Your task to perform on an android device: turn pop-ups off in chrome Image 0: 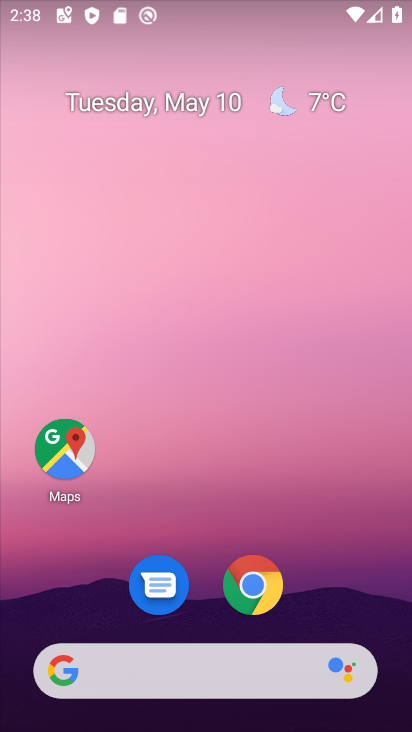
Step 0: click (259, 575)
Your task to perform on an android device: turn pop-ups off in chrome Image 1: 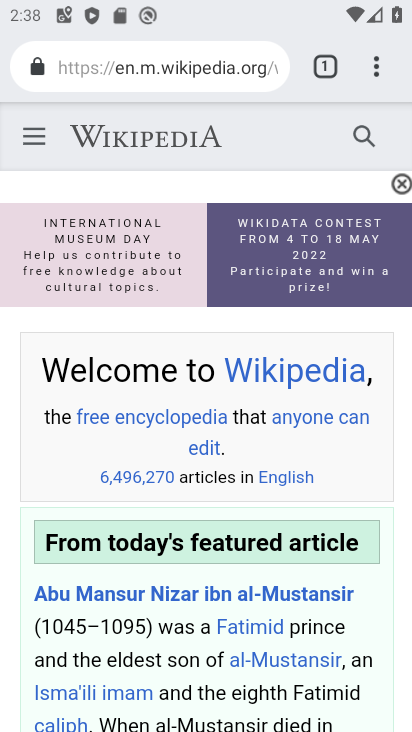
Step 1: click (373, 63)
Your task to perform on an android device: turn pop-ups off in chrome Image 2: 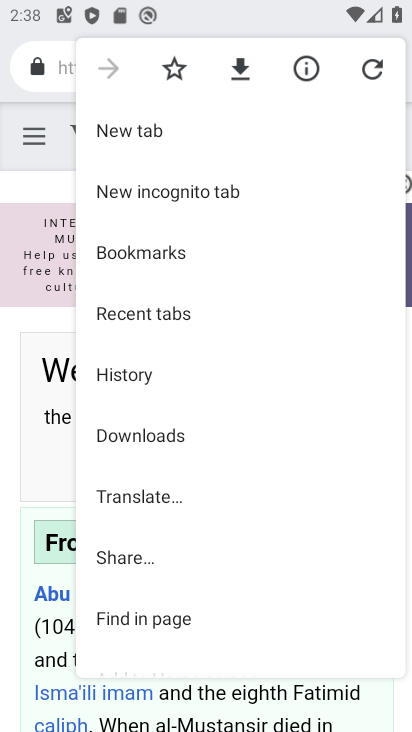
Step 2: drag from (277, 324) to (294, 184)
Your task to perform on an android device: turn pop-ups off in chrome Image 3: 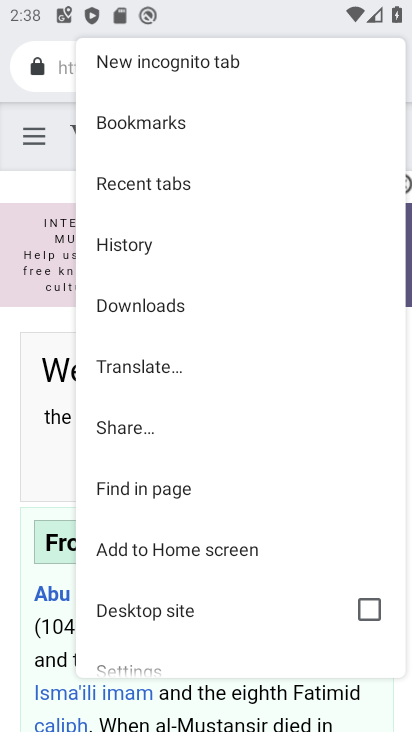
Step 3: drag from (242, 568) to (252, 375)
Your task to perform on an android device: turn pop-ups off in chrome Image 4: 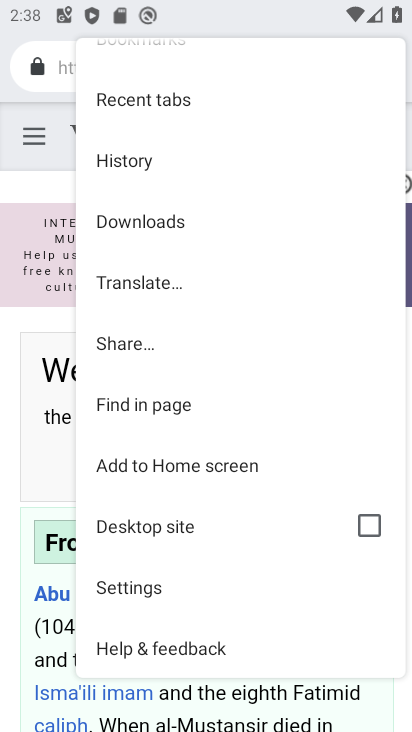
Step 4: click (178, 578)
Your task to perform on an android device: turn pop-ups off in chrome Image 5: 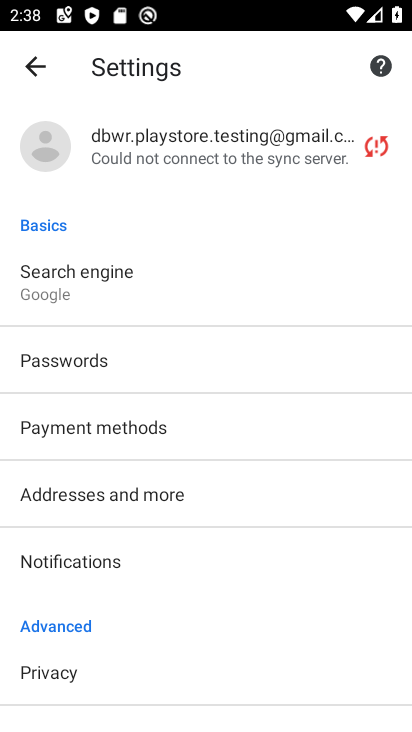
Step 5: drag from (178, 578) to (201, 265)
Your task to perform on an android device: turn pop-ups off in chrome Image 6: 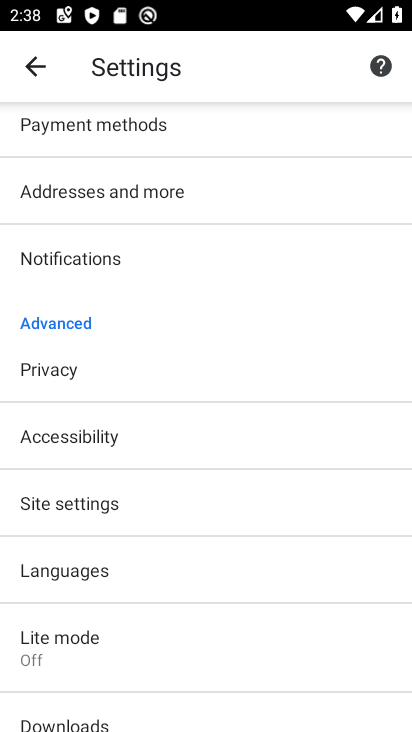
Step 6: click (155, 493)
Your task to perform on an android device: turn pop-ups off in chrome Image 7: 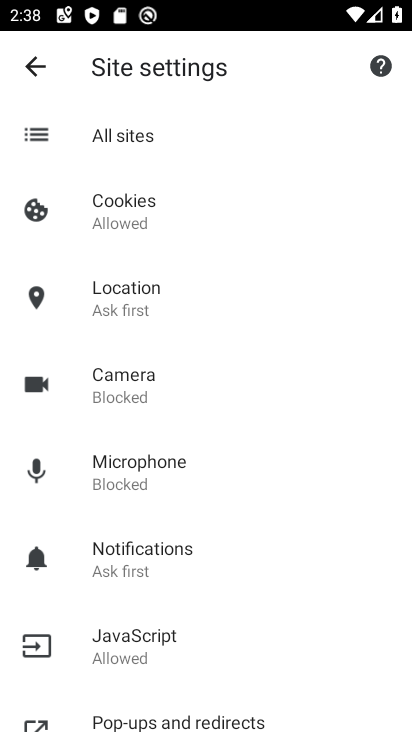
Step 7: drag from (227, 484) to (238, 308)
Your task to perform on an android device: turn pop-ups off in chrome Image 8: 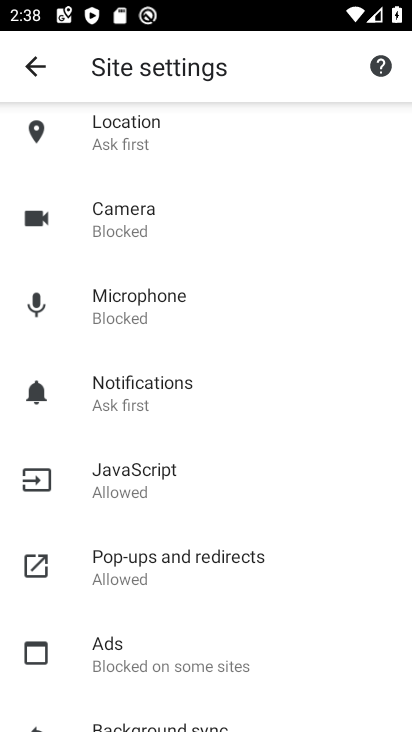
Step 8: click (204, 565)
Your task to perform on an android device: turn pop-ups off in chrome Image 9: 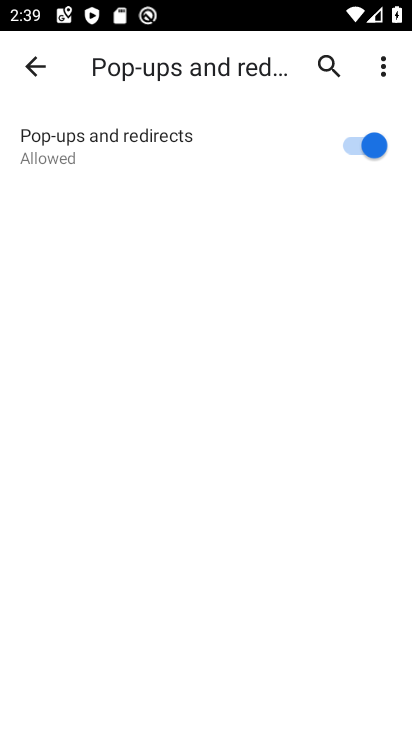
Step 9: click (351, 142)
Your task to perform on an android device: turn pop-ups off in chrome Image 10: 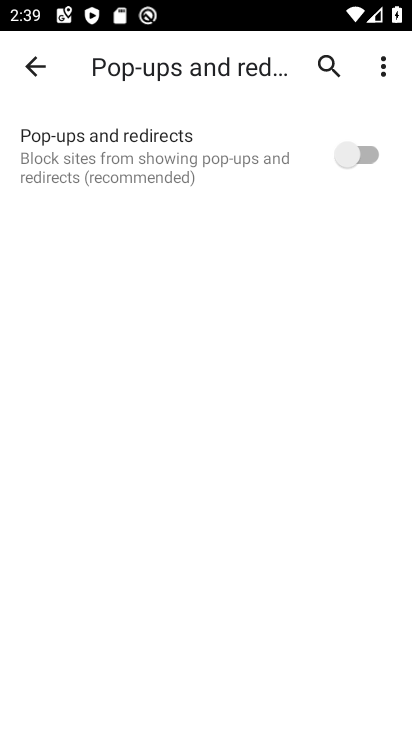
Step 10: task complete